Your task to perform on an android device: Go to Android settings Image 0: 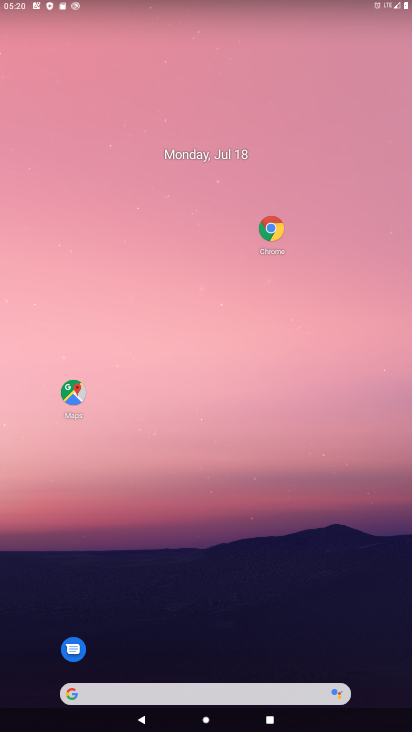
Step 0: drag from (215, 647) to (187, 62)
Your task to perform on an android device: Go to Android settings Image 1: 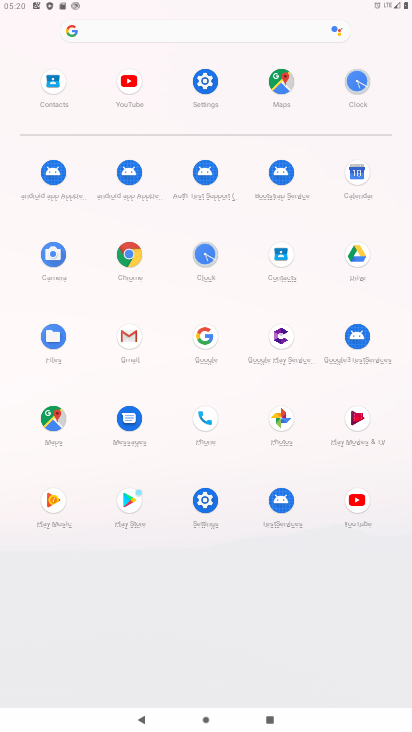
Step 1: click (212, 91)
Your task to perform on an android device: Go to Android settings Image 2: 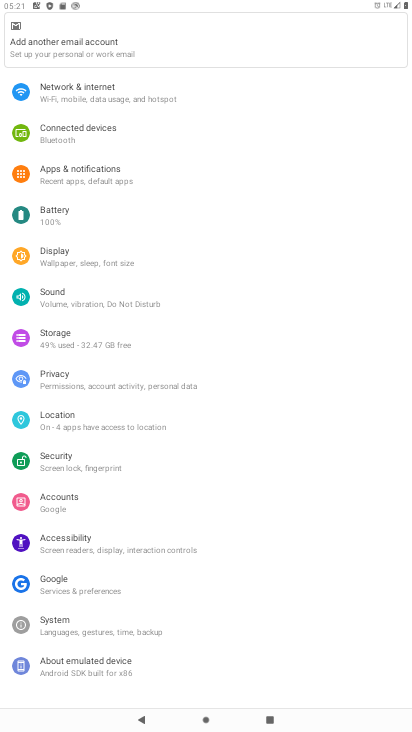
Step 2: task complete